Your task to perform on an android device: Find coffee shops on Maps Image 0: 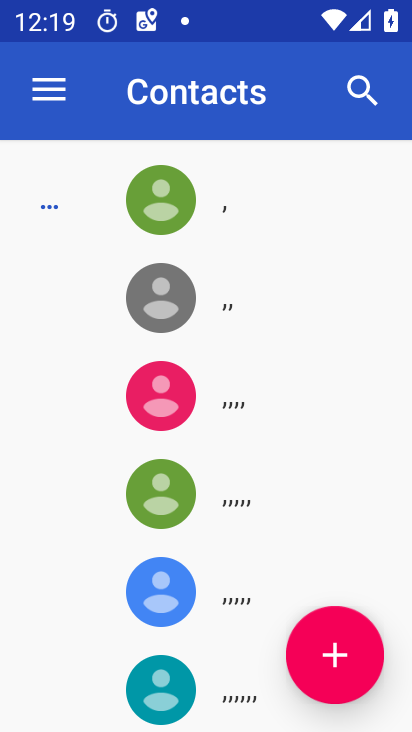
Step 0: press home button
Your task to perform on an android device: Find coffee shops on Maps Image 1: 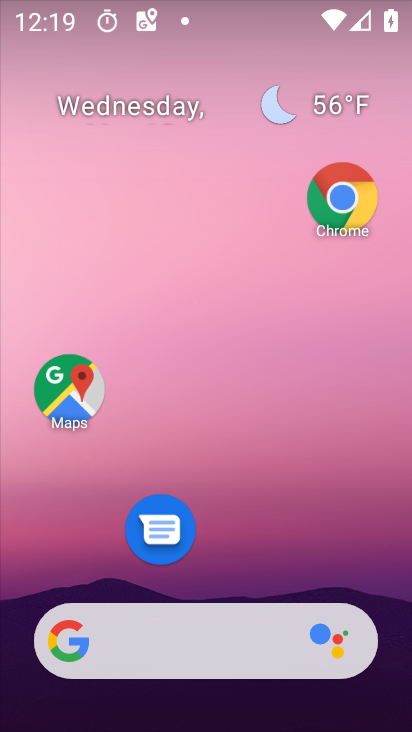
Step 1: click (75, 395)
Your task to perform on an android device: Find coffee shops on Maps Image 2: 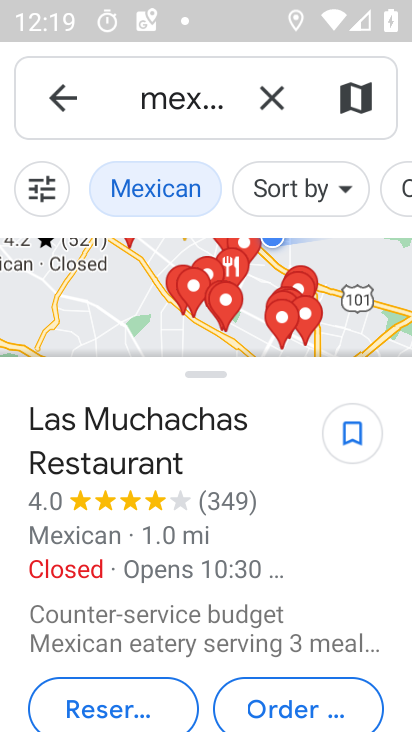
Step 2: click (280, 108)
Your task to perform on an android device: Find coffee shops on Maps Image 3: 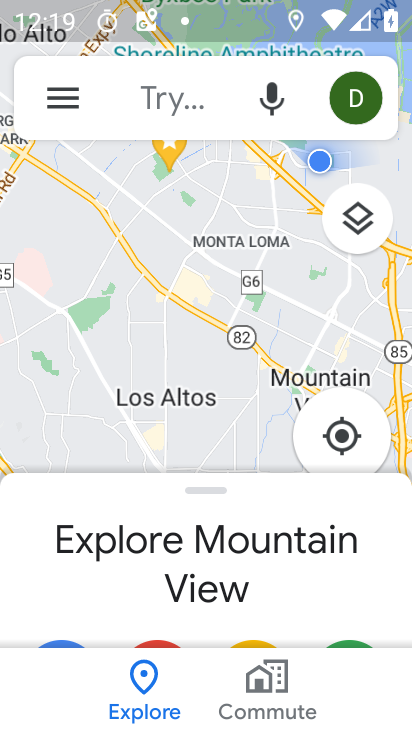
Step 3: click (170, 101)
Your task to perform on an android device: Find coffee shops on Maps Image 4: 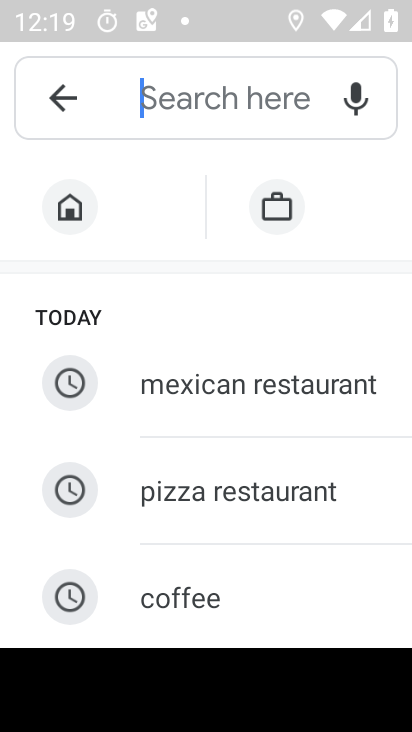
Step 4: click (177, 569)
Your task to perform on an android device: Find coffee shops on Maps Image 5: 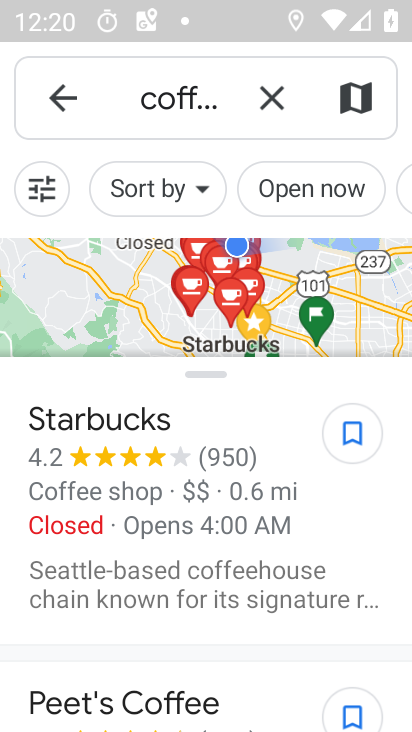
Step 5: task complete